Your task to perform on an android device: turn on javascript in the chrome app Image 0: 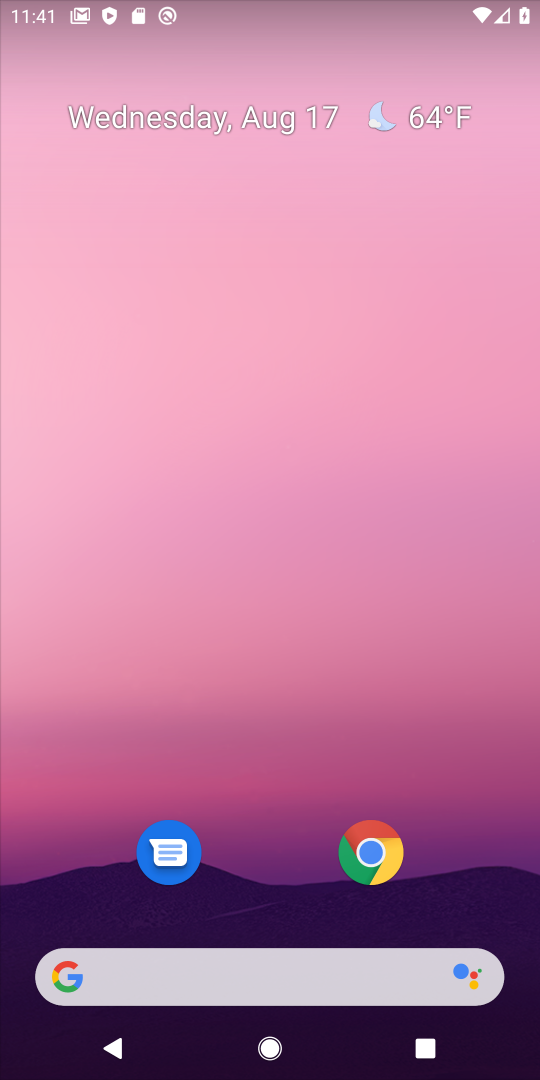
Step 0: drag from (366, 755) to (463, 94)
Your task to perform on an android device: turn on javascript in the chrome app Image 1: 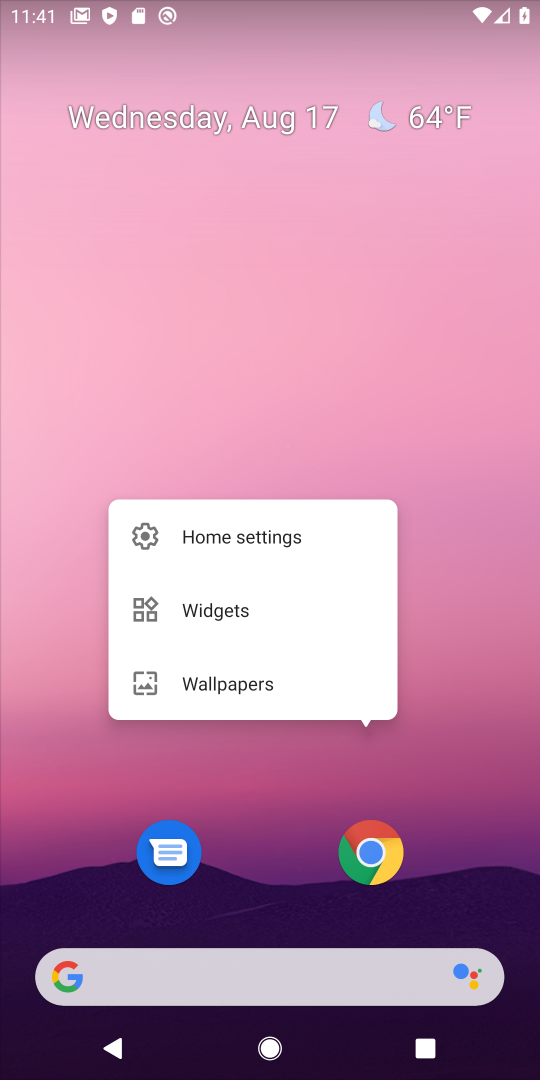
Step 1: click (252, 781)
Your task to perform on an android device: turn on javascript in the chrome app Image 2: 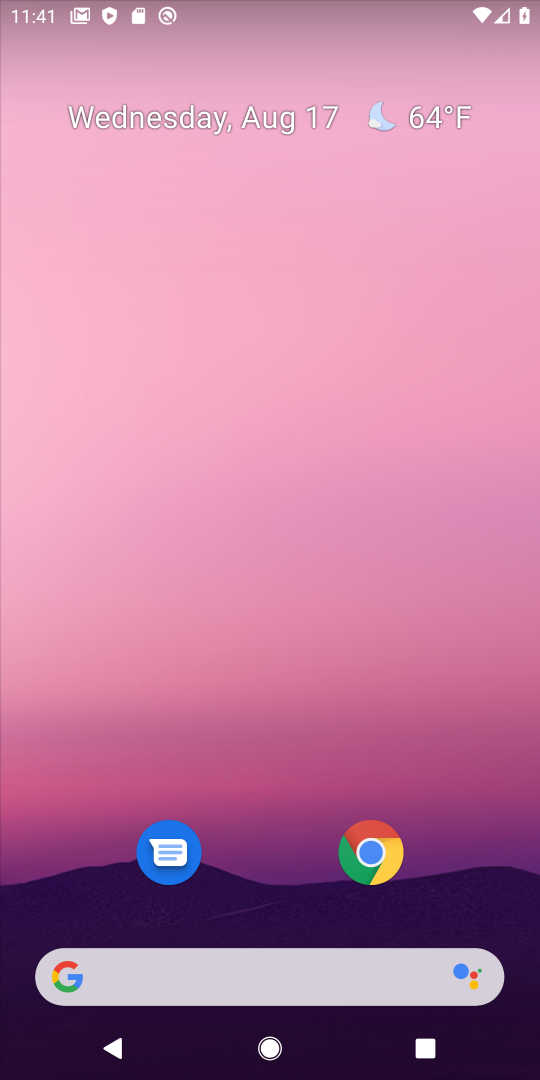
Step 2: task complete